Your task to perform on an android device: Open accessibility settings Image 0: 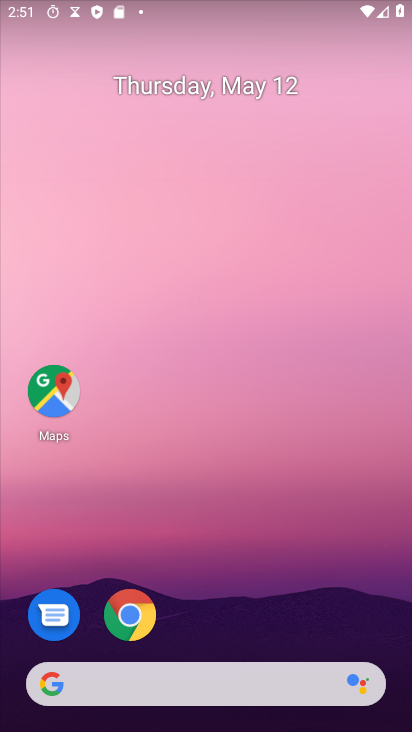
Step 0: press home button
Your task to perform on an android device: Open accessibility settings Image 1: 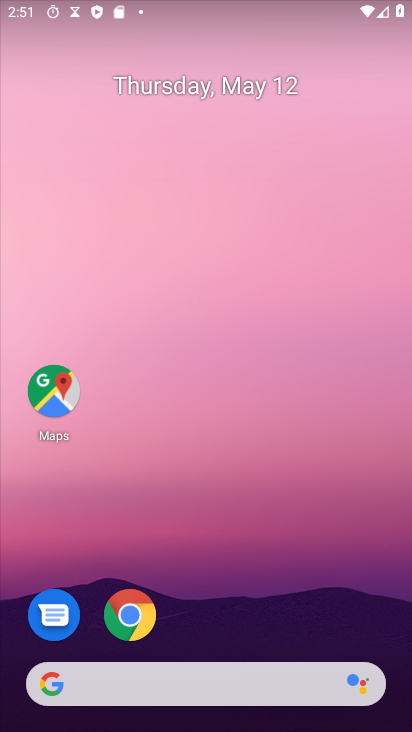
Step 1: drag from (8, 663) to (302, 54)
Your task to perform on an android device: Open accessibility settings Image 2: 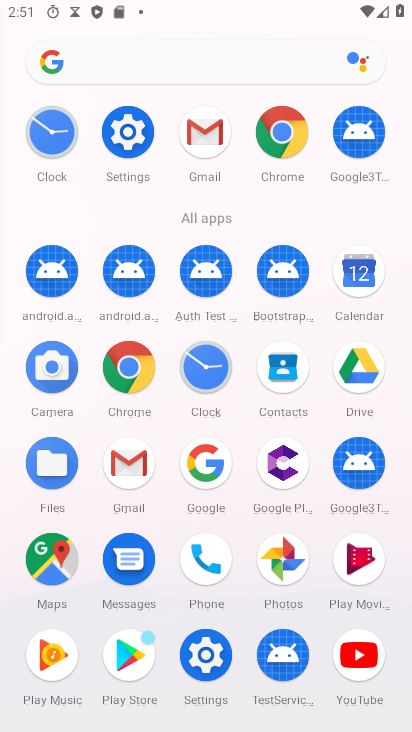
Step 2: click (145, 134)
Your task to perform on an android device: Open accessibility settings Image 3: 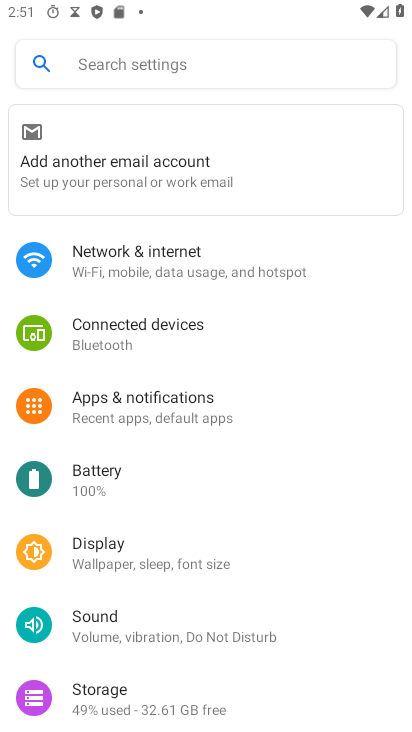
Step 3: drag from (148, 694) to (335, 112)
Your task to perform on an android device: Open accessibility settings Image 4: 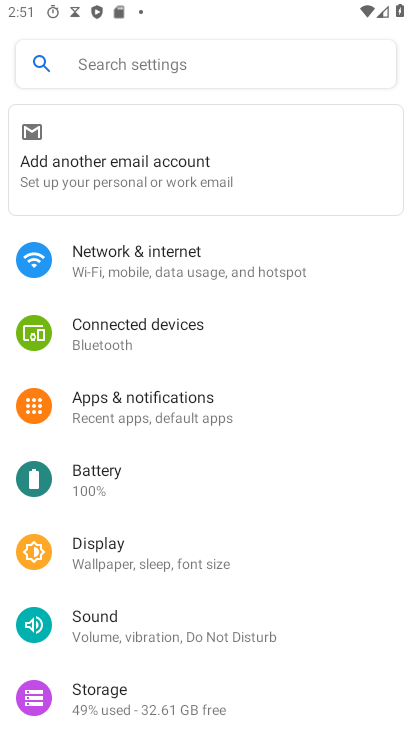
Step 4: drag from (186, 685) to (330, 178)
Your task to perform on an android device: Open accessibility settings Image 5: 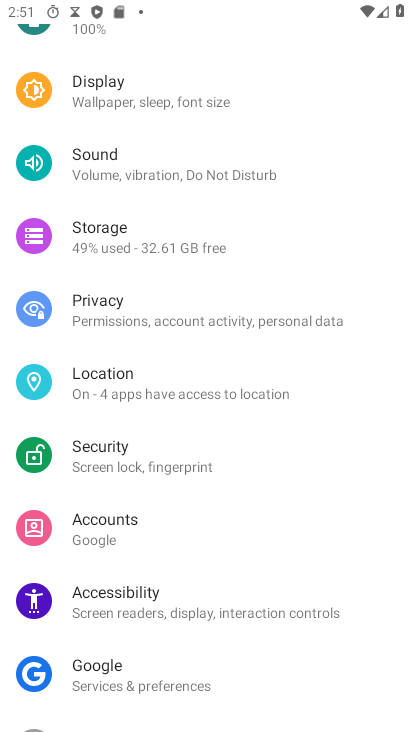
Step 5: click (161, 613)
Your task to perform on an android device: Open accessibility settings Image 6: 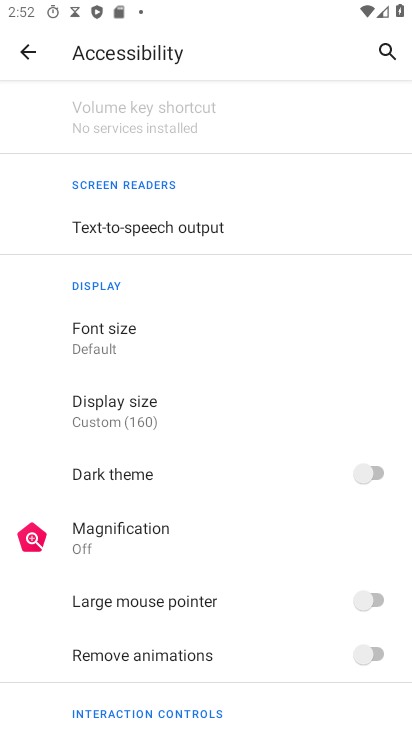
Step 6: press home button
Your task to perform on an android device: Open accessibility settings Image 7: 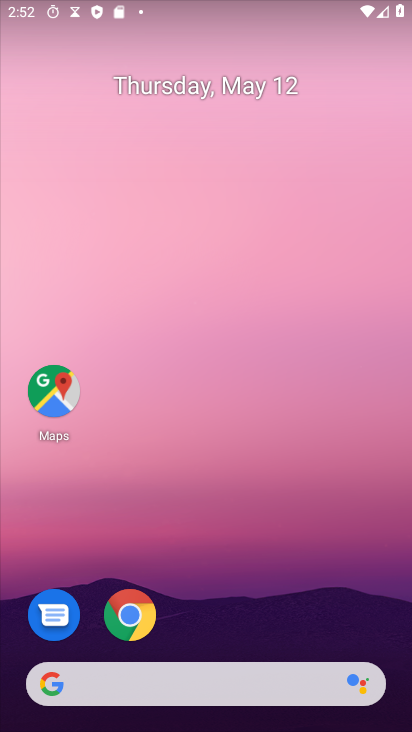
Step 7: drag from (48, 583) to (293, 136)
Your task to perform on an android device: Open accessibility settings Image 8: 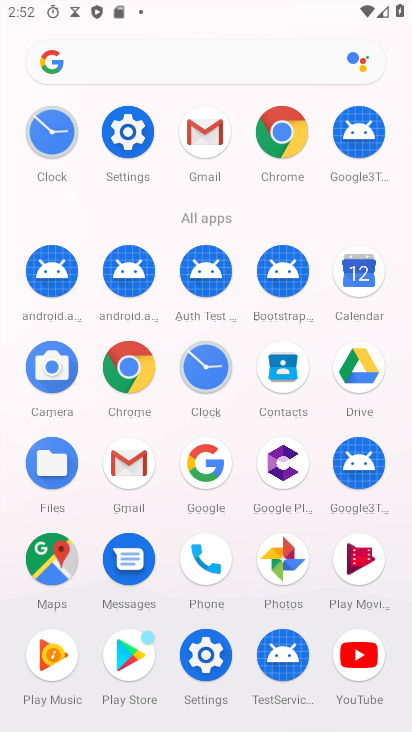
Step 8: click (133, 116)
Your task to perform on an android device: Open accessibility settings Image 9: 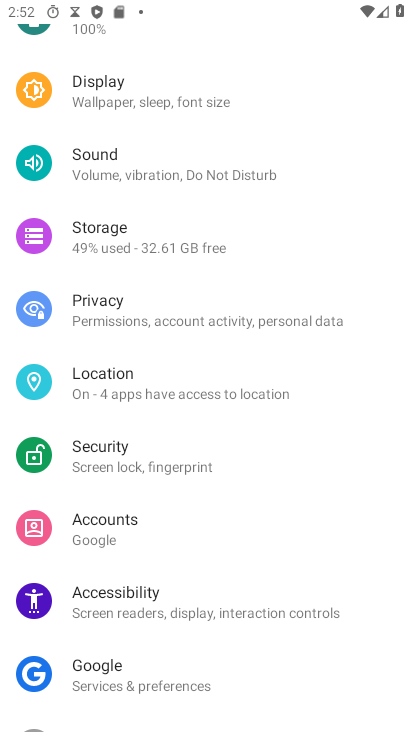
Step 9: click (112, 601)
Your task to perform on an android device: Open accessibility settings Image 10: 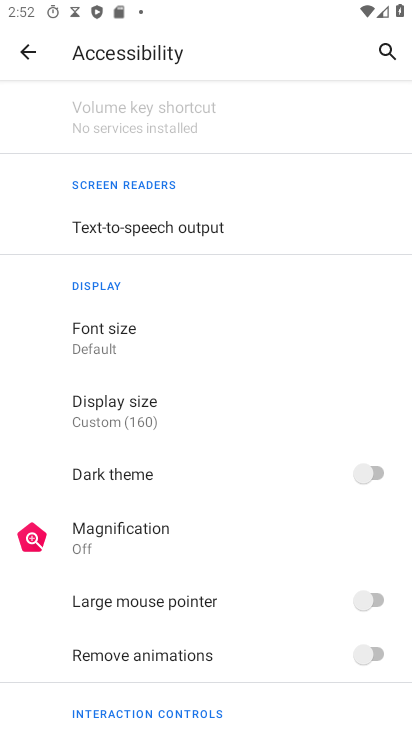
Step 10: task complete